Your task to perform on an android device: Open settings on Google Maps Image 0: 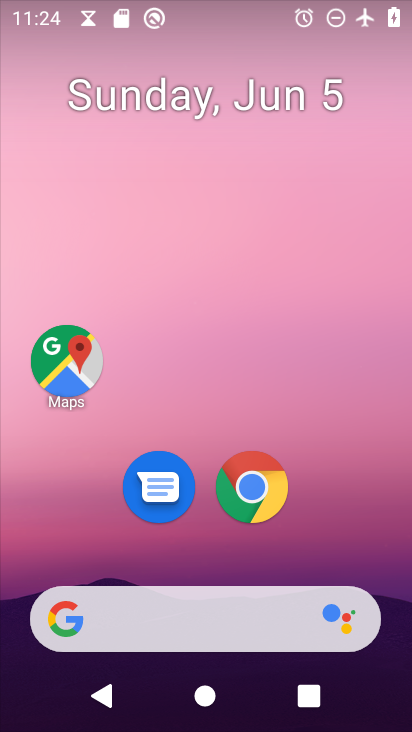
Step 0: drag from (308, 538) to (269, 188)
Your task to perform on an android device: Open settings on Google Maps Image 1: 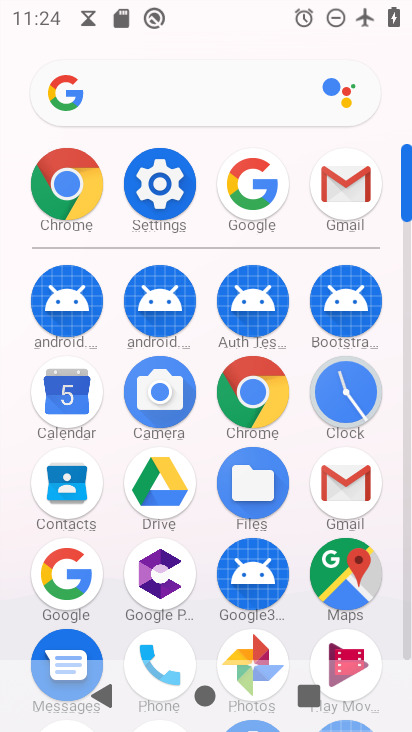
Step 1: drag from (192, 559) to (180, 364)
Your task to perform on an android device: Open settings on Google Maps Image 2: 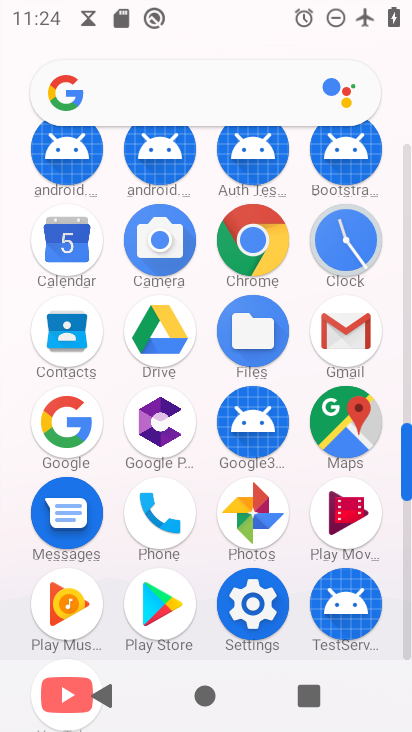
Step 2: click (353, 412)
Your task to perform on an android device: Open settings on Google Maps Image 3: 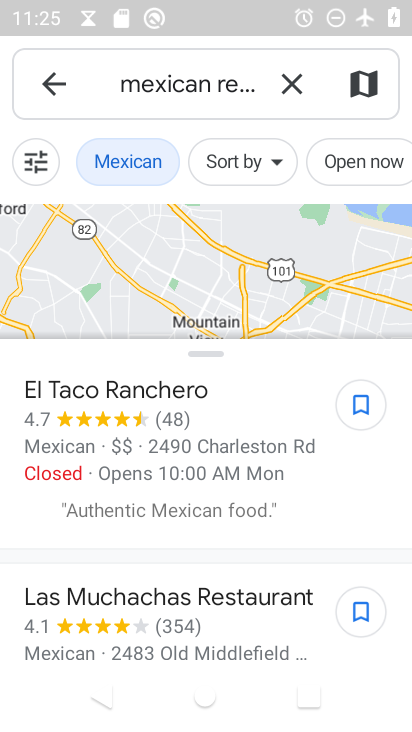
Step 3: task complete